Your task to perform on an android device: choose inbox layout in the gmail app Image 0: 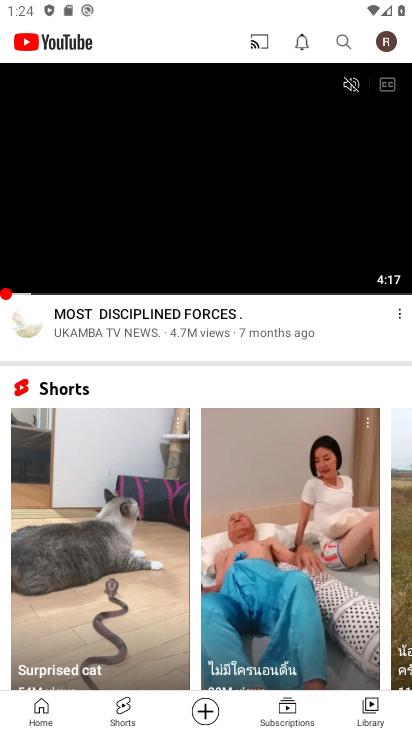
Step 0: press home button
Your task to perform on an android device: choose inbox layout in the gmail app Image 1: 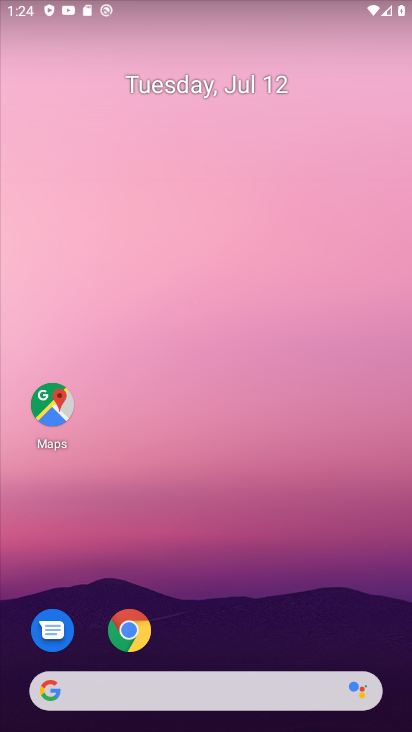
Step 1: drag from (362, 636) to (345, 151)
Your task to perform on an android device: choose inbox layout in the gmail app Image 2: 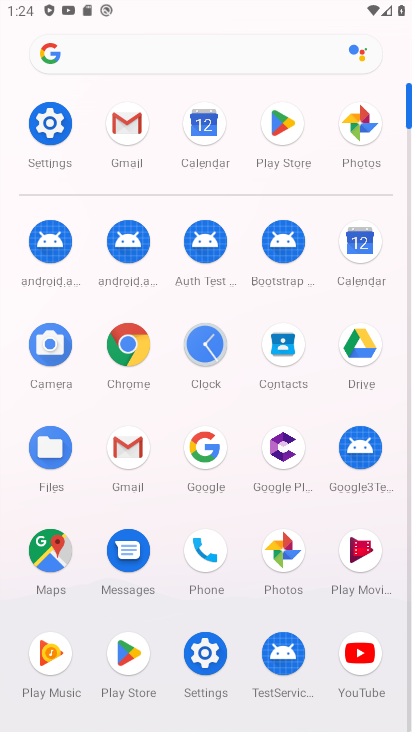
Step 2: click (126, 440)
Your task to perform on an android device: choose inbox layout in the gmail app Image 3: 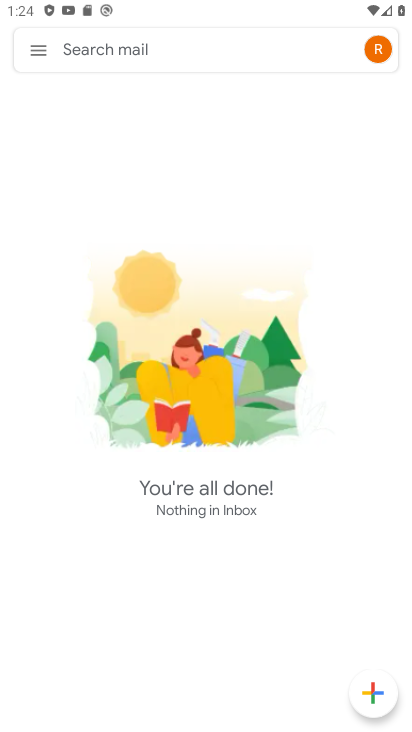
Step 3: click (33, 46)
Your task to perform on an android device: choose inbox layout in the gmail app Image 4: 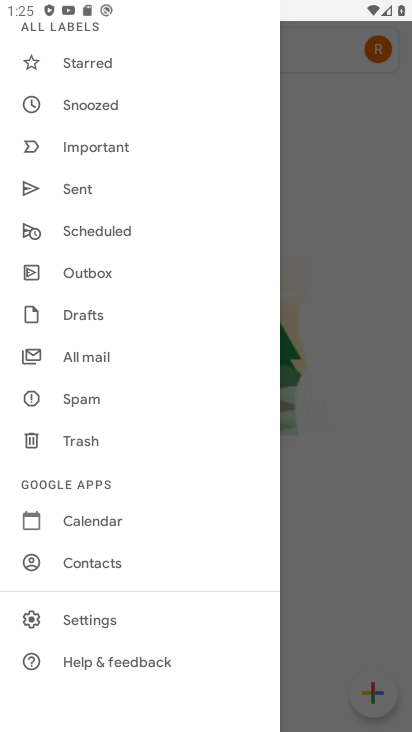
Step 4: click (95, 618)
Your task to perform on an android device: choose inbox layout in the gmail app Image 5: 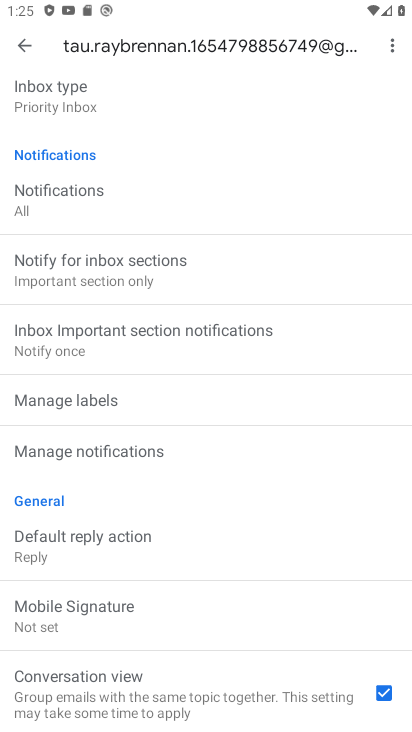
Step 5: drag from (127, 125) to (128, 309)
Your task to perform on an android device: choose inbox layout in the gmail app Image 6: 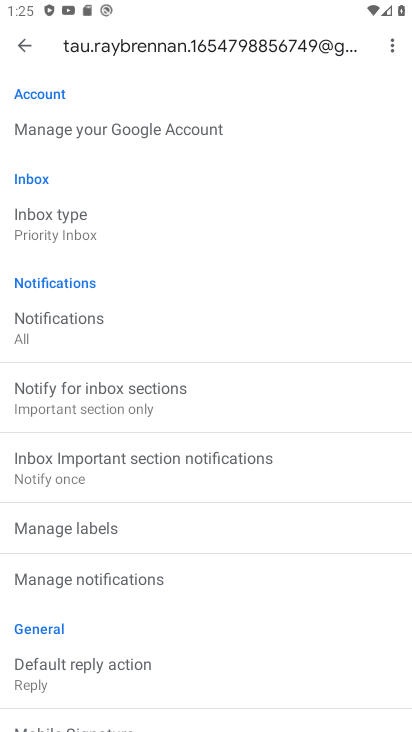
Step 6: click (39, 212)
Your task to perform on an android device: choose inbox layout in the gmail app Image 7: 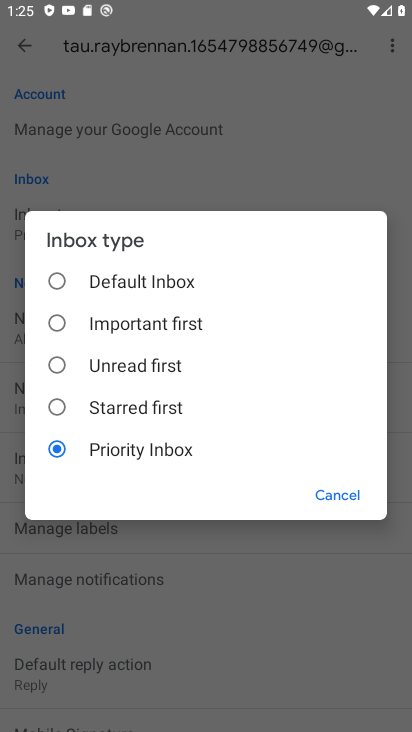
Step 7: click (52, 277)
Your task to perform on an android device: choose inbox layout in the gmail app Image 8: 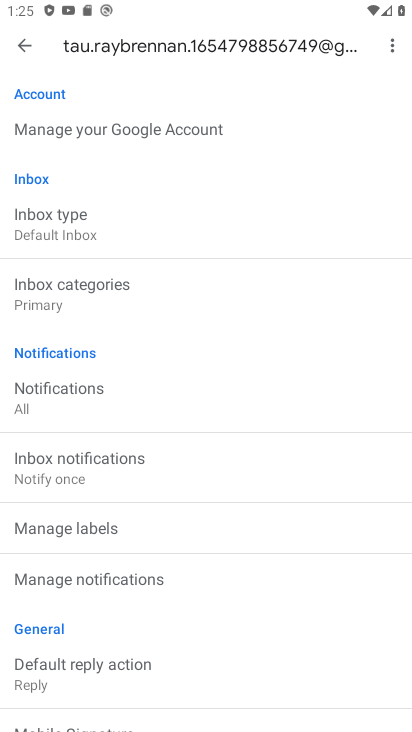
Step 8: task complete